Your task to perform on an android device: Show me recent news Image 0: 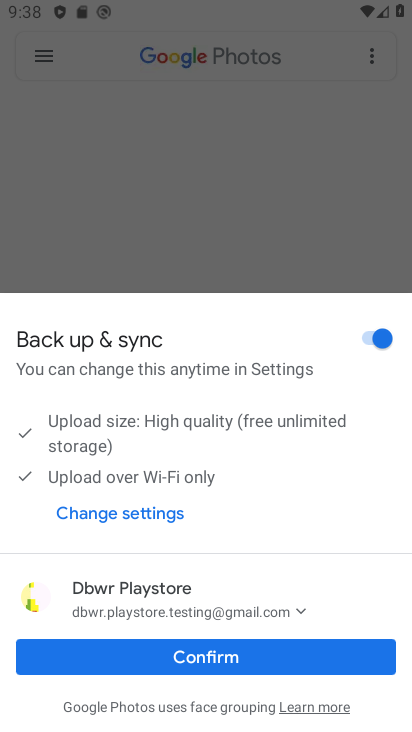
Step 0: press home button
Your task to perform on an android device: Show me recent news Image 1: 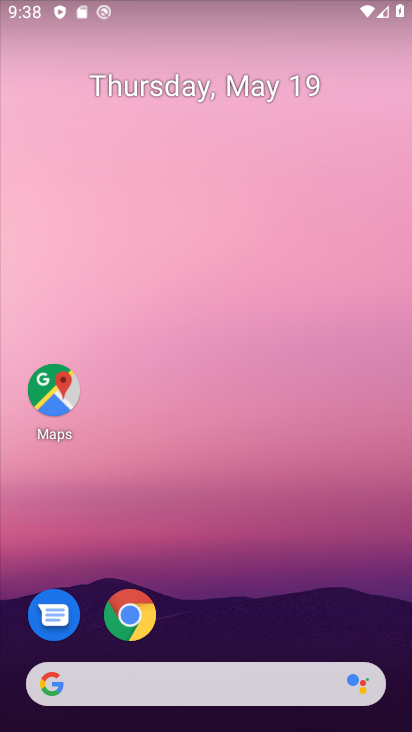
Step 1: drag from (239, 547) to (214, 9)
Your task to perform on an android device: Show me recent news Image 2: 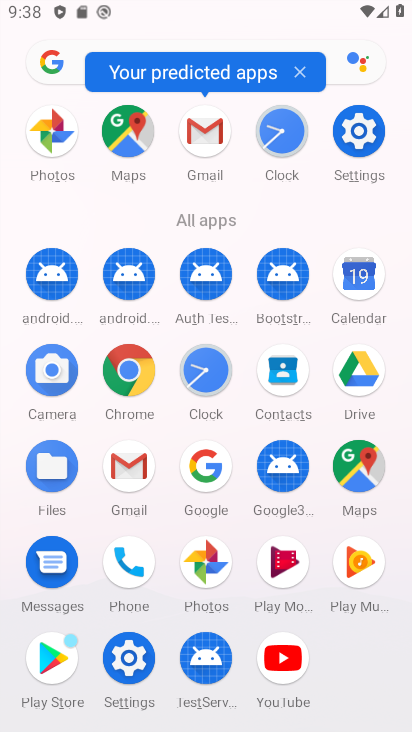
Step 2: click (211, 464)
Your task to perform on an android device: Show me recent news Image 3: 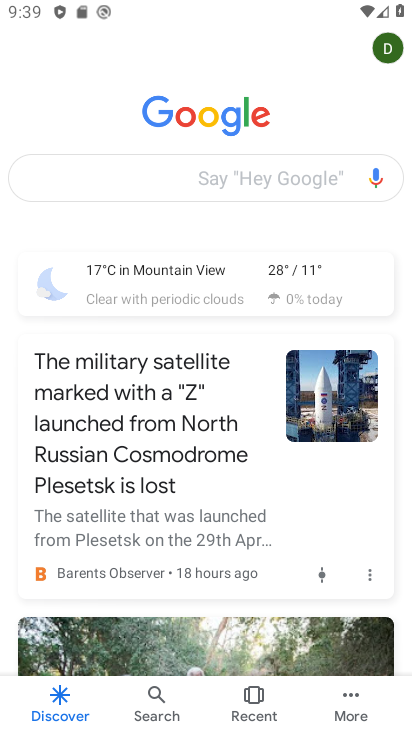
Step 3: click (179, 174)
Your task to perform on an android device: Show me recent news Image 4: 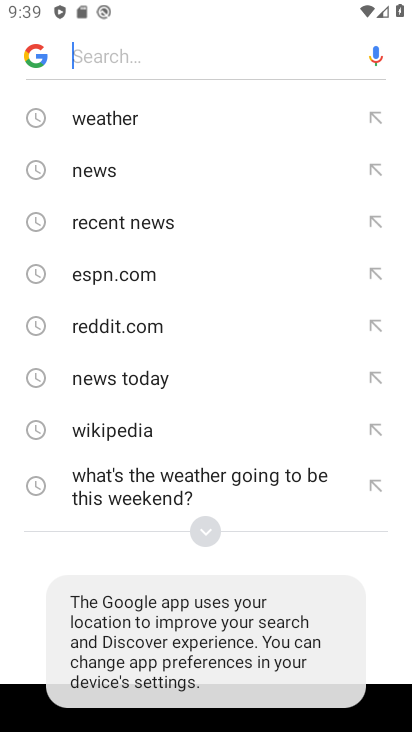
Step 4: click (159, 218)
Your task to perform on an android device: Show me recent news Image 5: 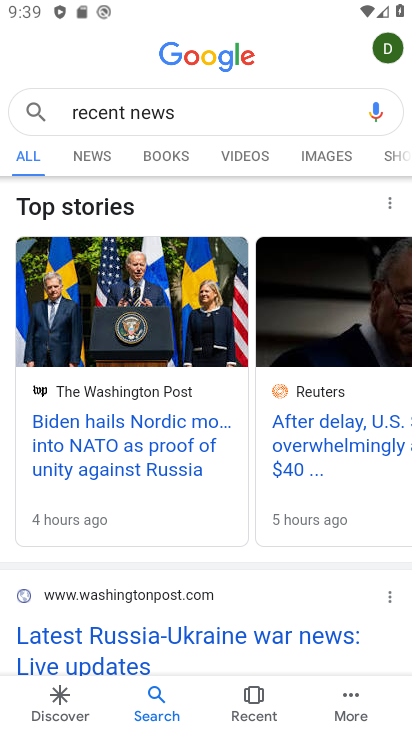
Step 5: task complete